Your task to perform on an android device: Open Youtube and go to "Your channel" Image 0: 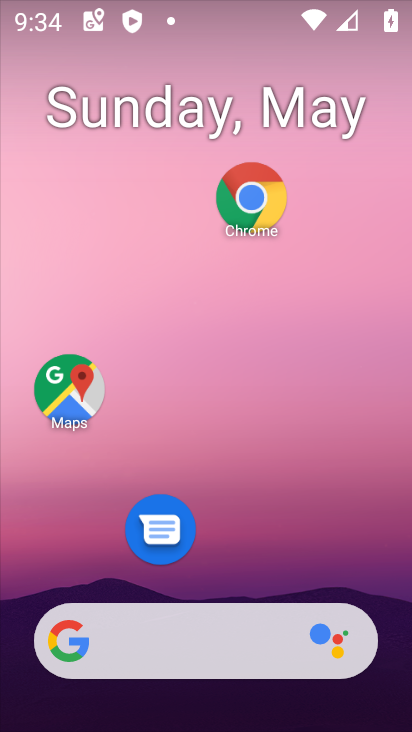
Step 0: drag from (286, 473) to (312, 122)
Your task to perform on an android device: Open Youtube and go to "Your channel" Image 1: 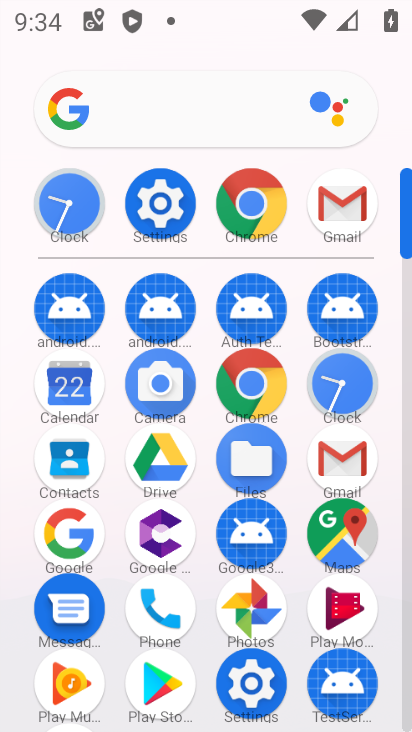
Step 1: drag from (296, 449) to (300, 185)
Your task to perform on an android device: Open Youtube and go to "Your channel" Image 2: 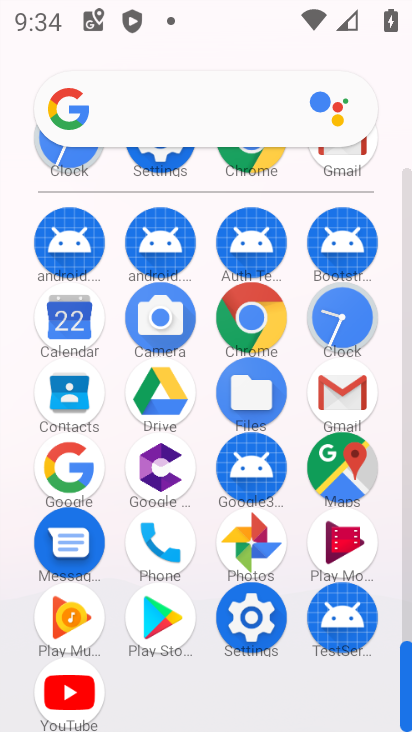
Step 2: click (66, 678)
Your task to perform on an android device: Open Youtube and go to "Your channel" Image 3: 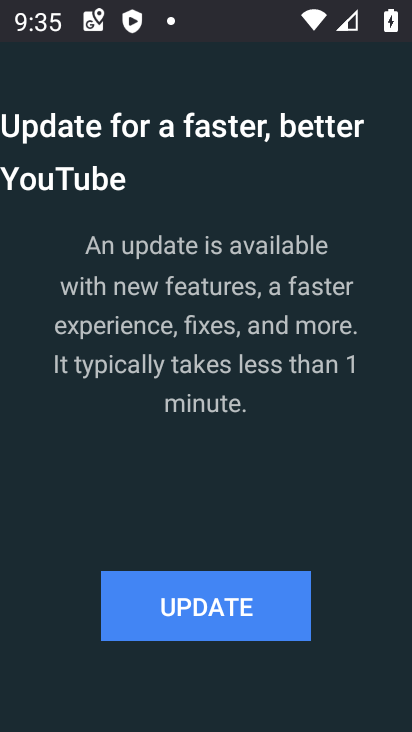
Step 3: click (266, 613)
Your task to perform on an android device: Open Youtube and go to "Your channel" Image 4: 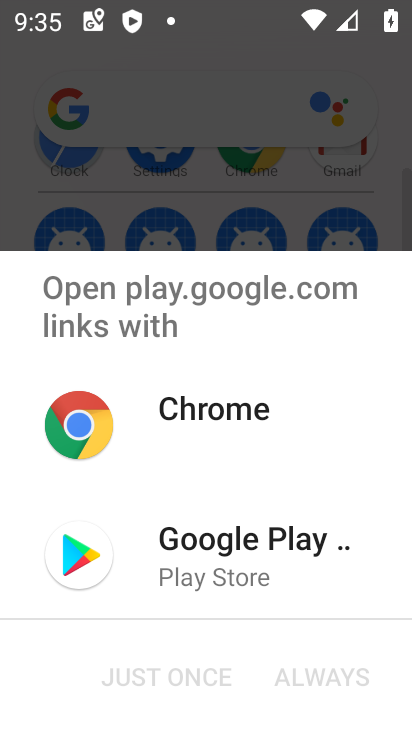
Step 4: click (115, 546)
Your task to perform on an android device: Open Youtube and go to "Your channel" Image 5: 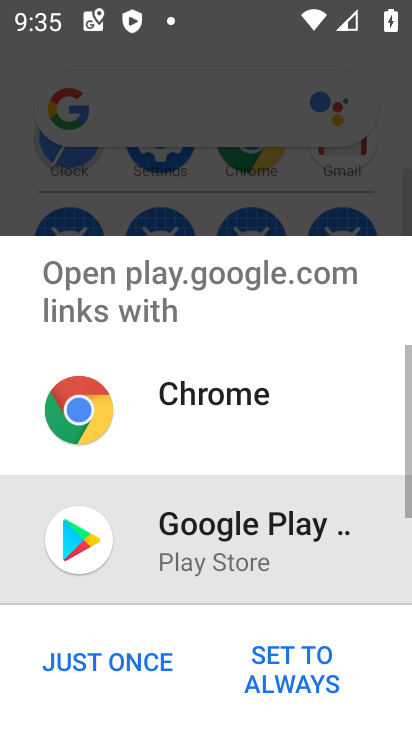
Step 5: click (78, 666)
Your task to perform on an android device: Open Youtube and go to "Your channel" Image 6: 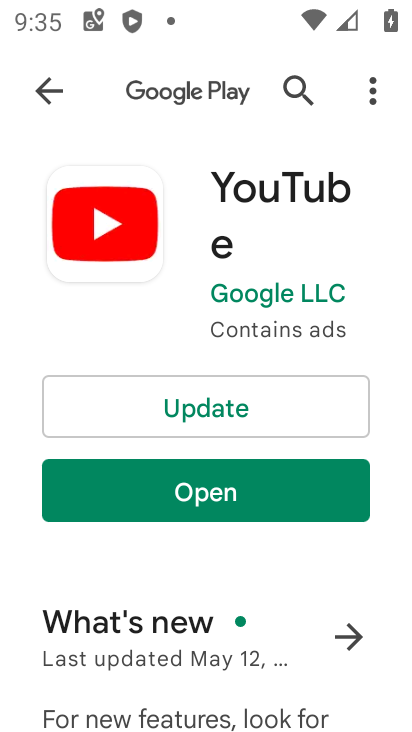
Step 6: click (218, 400)
Your task to perform on an android device: Open Youtube and go to "Your channel" Image 7: 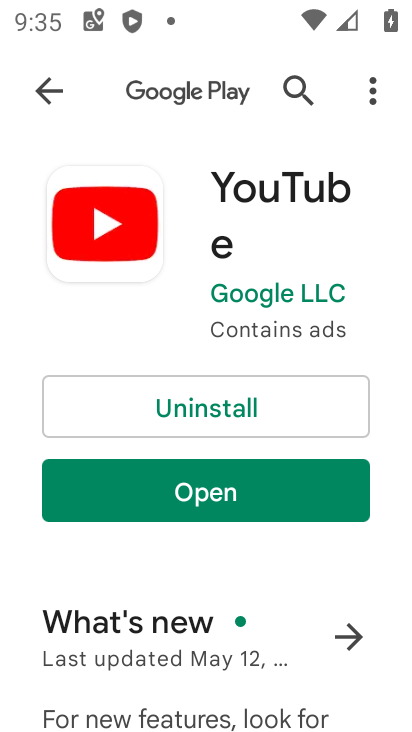
Step 7: click (184, 483)
Your task to perform on an android device: Open Youtube and go to "Your channel" Image 8: 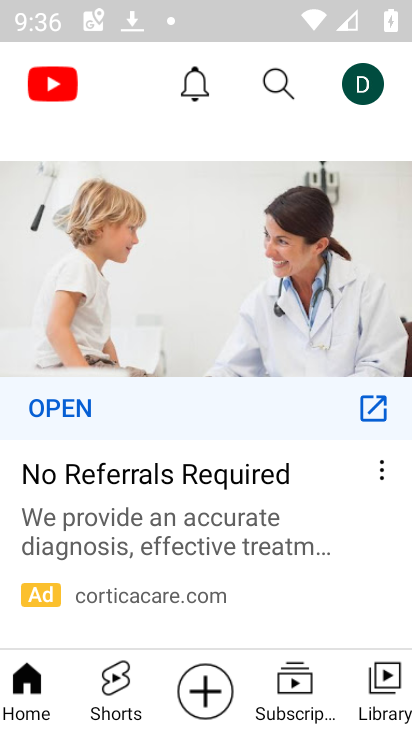
Step 8: click (353, 89)
Your task to perform on an android device: Open Youtube and go to "Your channel" Image 9: 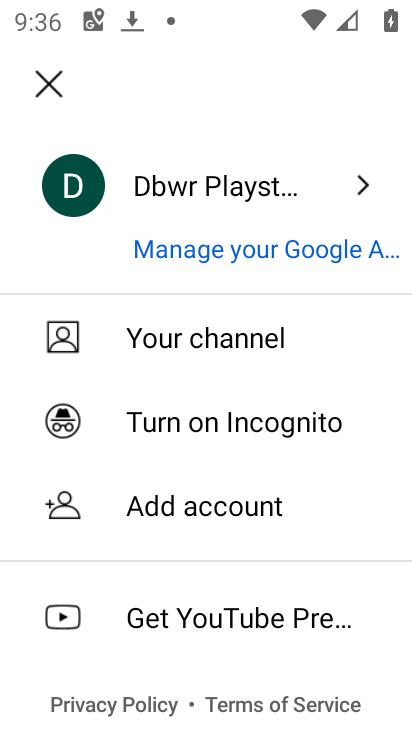
Step 9: click (88, 337)
Your task to perform on an android device: Open Youtube and go to "Your channel" Image 10: 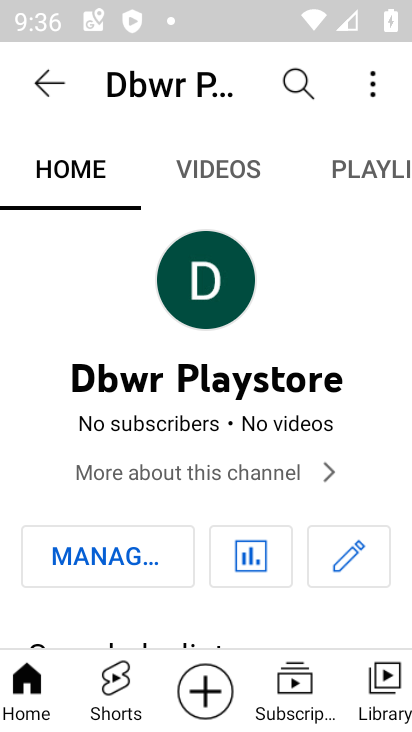
Step 10: task complete